Your task to perform on an android device: turn pop-ups on in chrome Image 0: 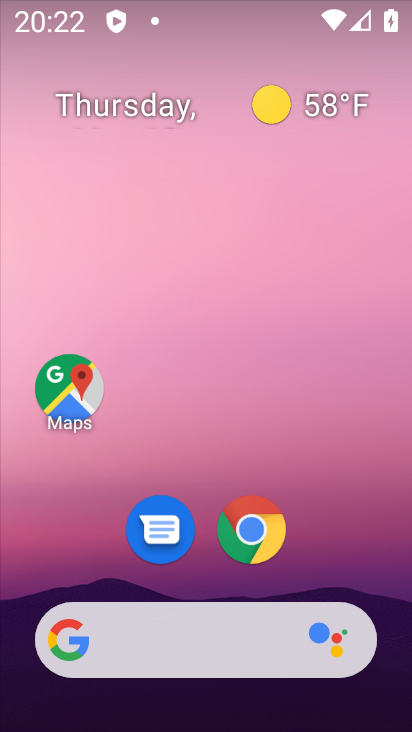
Step 0: click (248, 534)
Your task to perform on an android device: turn pop-ups on in chrome Image 1: 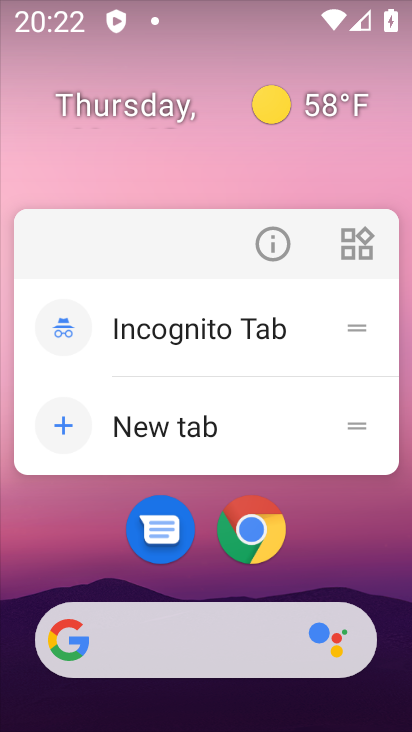
Step 1: click (248, 534)
Your task to perform on an android device: turn pop-ups on in chrome Image 2: 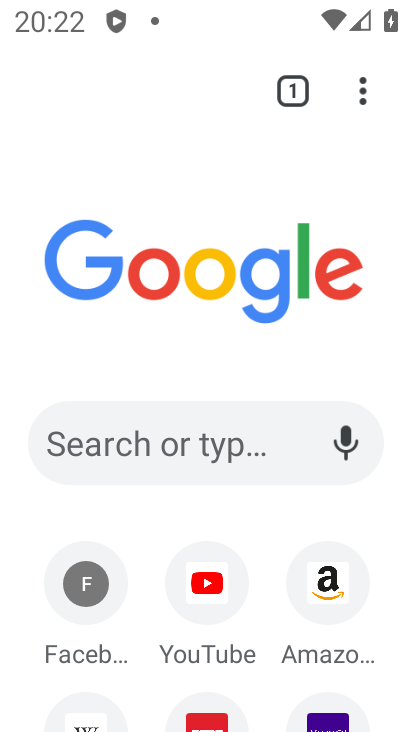
Step 2: click (352, 95)
Your task to perform on an android device: turn pop-ups on in chrome Image 3: 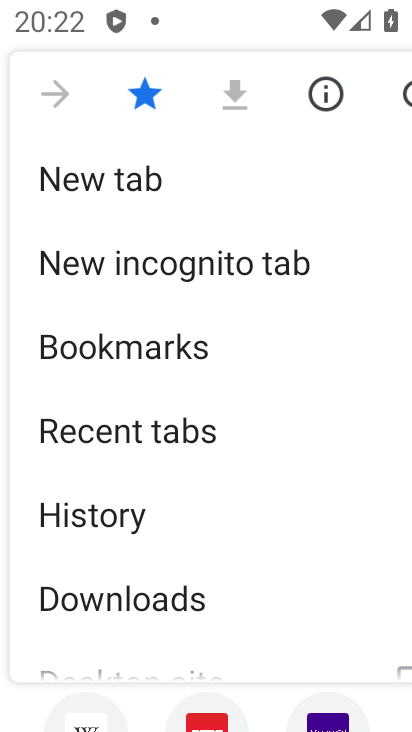
Step 3: drag from (208, 628) to (274, 3)
Your task to perform on an android device: turn pop-ups on in chrome Image 4: 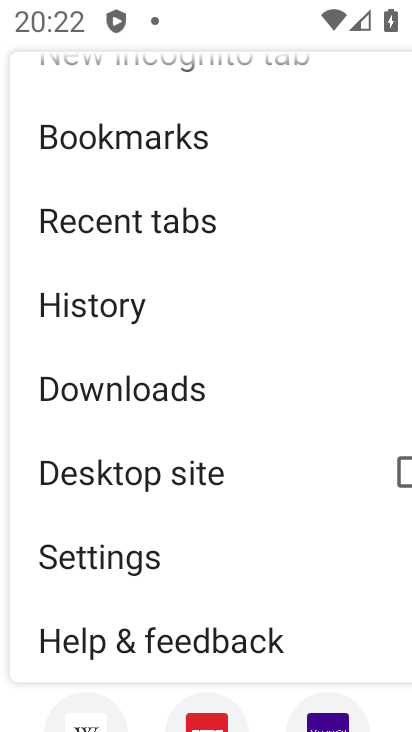
Step 4: click (113, 563)
Your task to perform on an android device: turn pop-ups on in chrome Image 5: 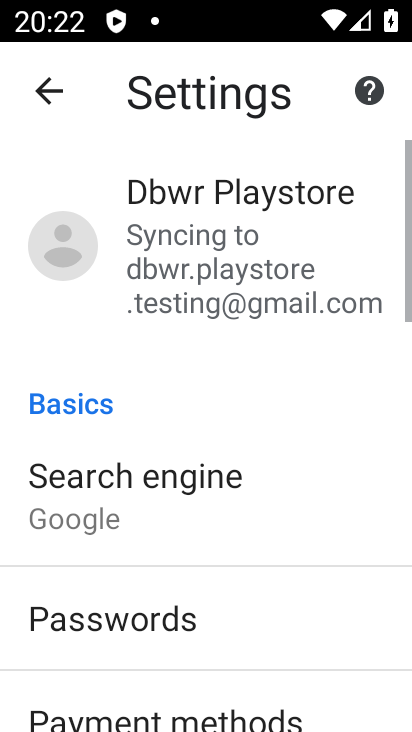
Step 5: drag from (200, 573) to (237, 78)
Your task to perform on an android device: turn pop-ups on in chrome Image 6: 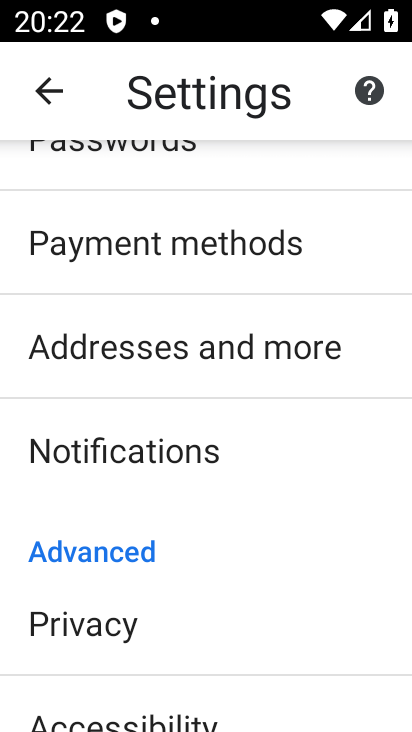
Step 6: drag from (212, 600) to (231, 120)
Your task to perform on an android device: turn pop-ups on in chrome Image 7: 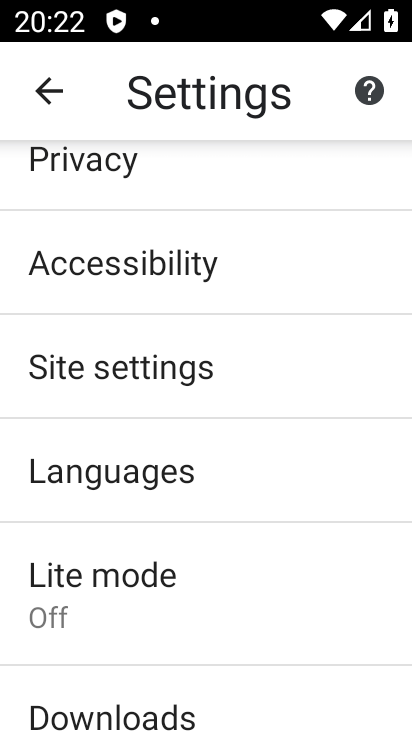
Step 7: click (105, 375)
Your task to perform on an android device: turn pop-ups on in chrome Image 8: 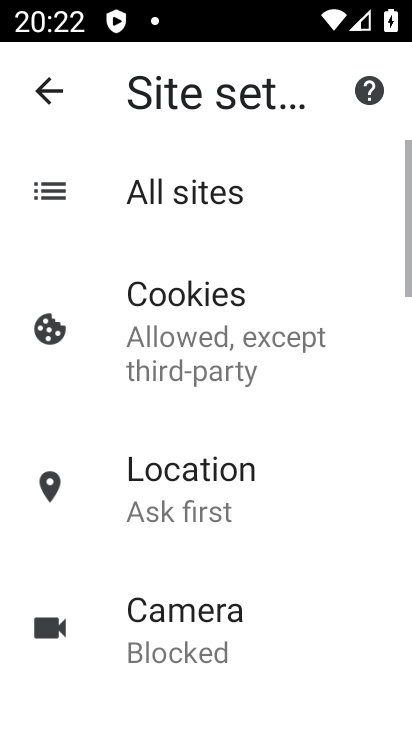
Step 8: drag from (211, 598) to (202, 103)
Your task to perform on an android device: turn pop-ups on in chrome Image 9: 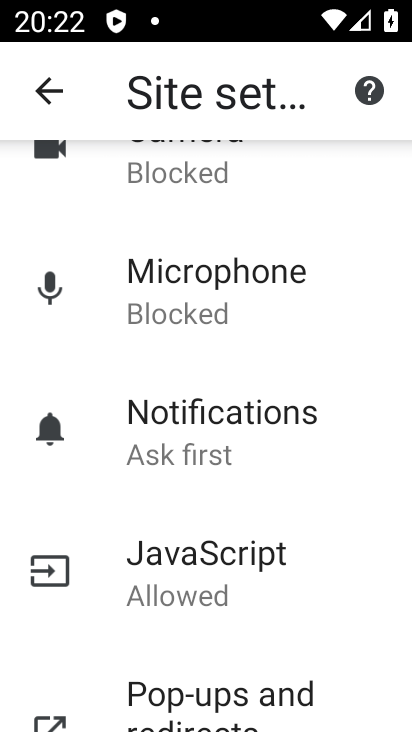
Step 9: drag from (263, 613) to (258, 289)
Your task to perform on an android device: turn pop-ups on in chrome Image 10: 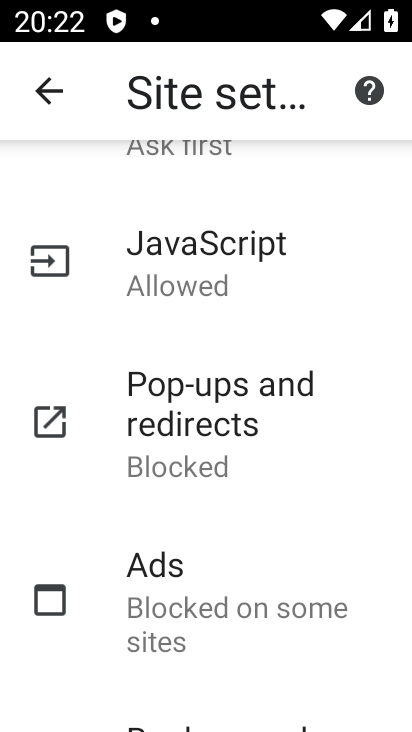
Step 10: click (208, 434)
Your task to perform on an android device: turn pop-ups on in chrome Image 11: 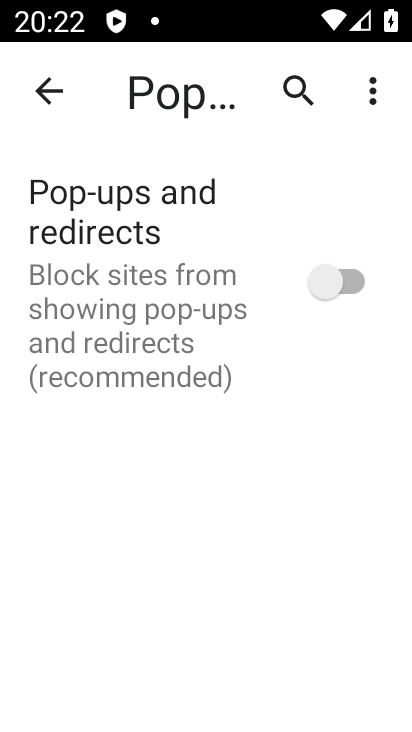
Step 11: click (323, 281)
Your task to perform on an android device: turn pop-ups on in chrome Image 12: 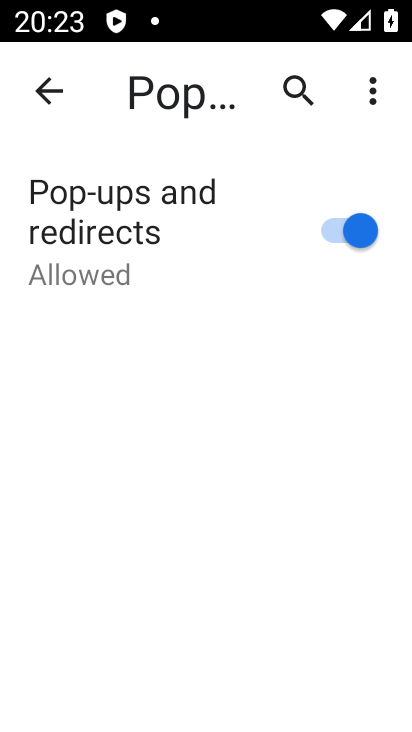
Step 12: task complete